Your task to perform on an android device: toggle improve location accuracy Image 0: 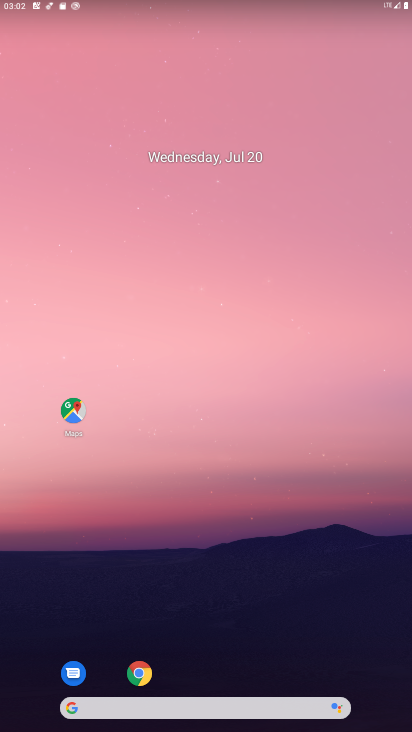
Step 0: drag from (216, 639) to (226, 10)
Your task to perform on an android device: toggle improve location accuracy Image 1: 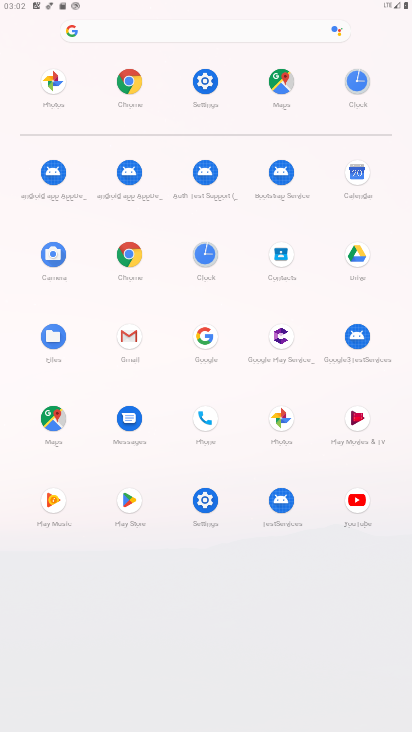
Step 1: click (209, 512)
Your task to perform on an android device: toggle improve location accuracy Image 2: 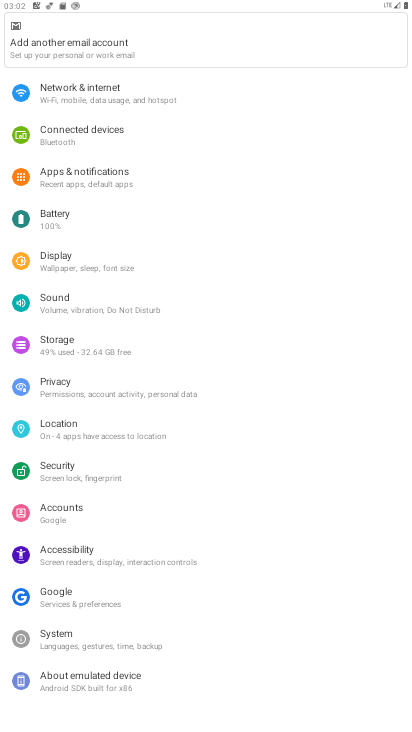
Step 2: click (95, 427)
Your task to perform on an android device: toggle improve location accuracy Image 3: 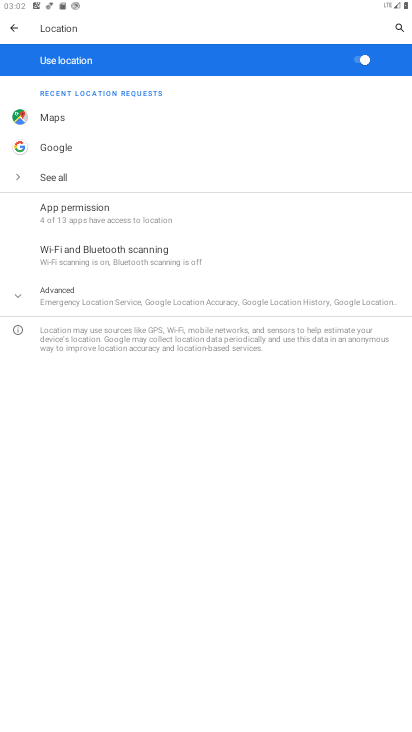
Step 3: click (118, 299)
Your task to perform on an android device: toggle improve location accuracy Image 4: 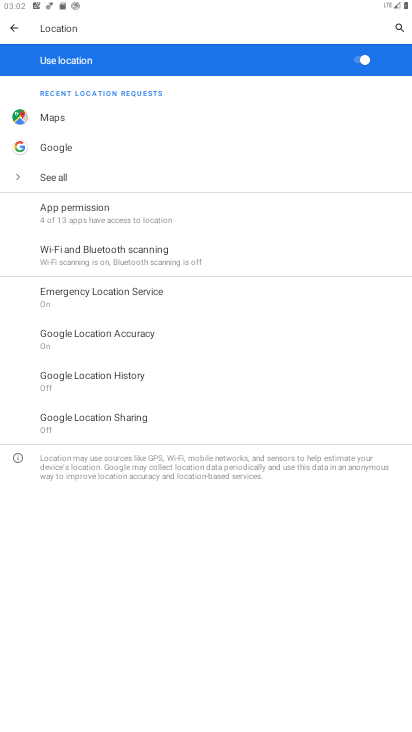
Step 4: click (137, 341)
Your task to perform on an android device: toggle improve location accuracy Image 5: 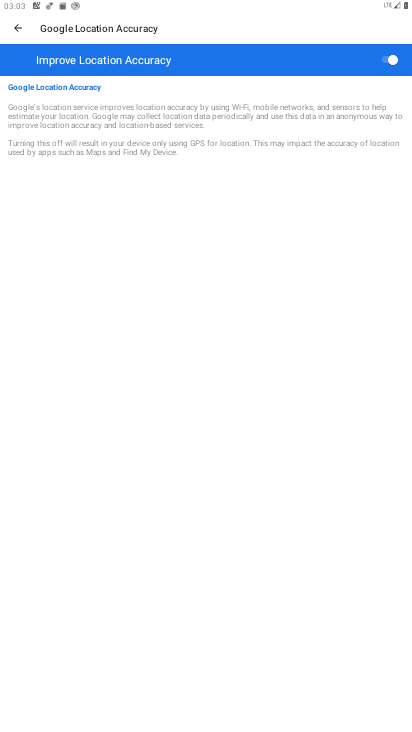
Step 5: click (367, 49)
Your task to perform on an android device: toggle improve location accuracy Image 6: 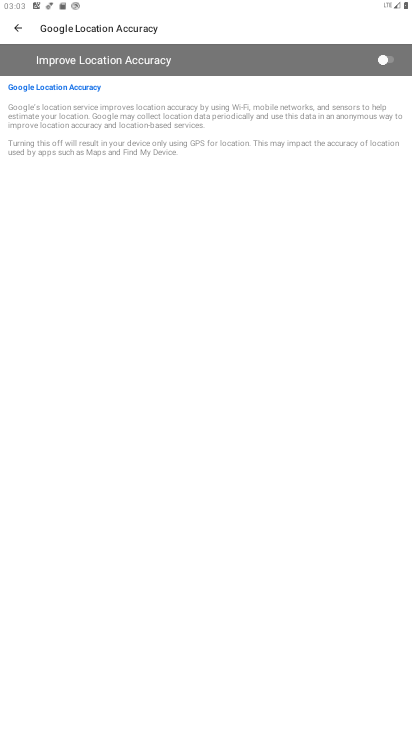
Step 6: task complete